Your task to perform on an android device: Open Google Chrome and click the shortcut for Amazon.com Image 0: 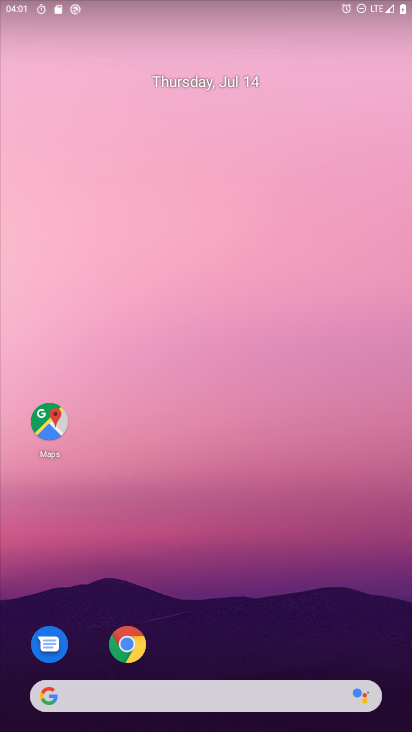
Step 0: drag from (270, 642) to (308, 56)
Your task to perform on an android device: Open Google Chrome and click the shortcut for Amazon.com Image 1: 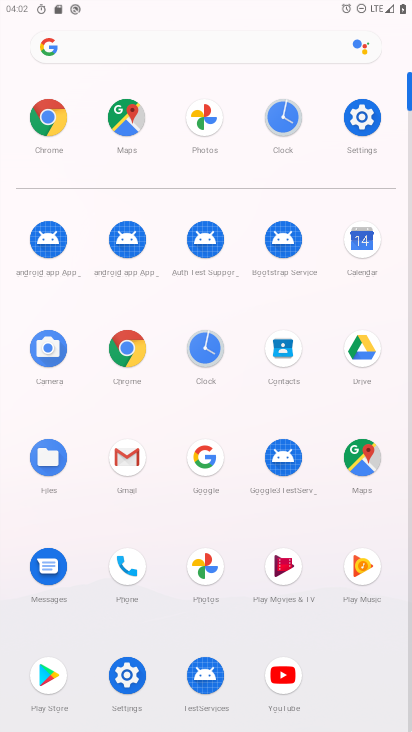
Step 1: click (127, 349)
Your task to perform on an android device: Open Google Chrome and click the shortcut for Amazon.com Image 2: 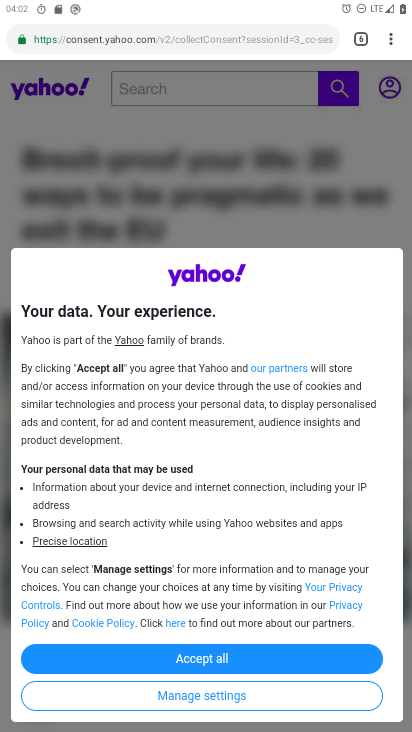
Step 2: click (156, 38)
Your task to perform on an android device: Open Google Chrome and click the shortcut for Amazon.com Image 3: 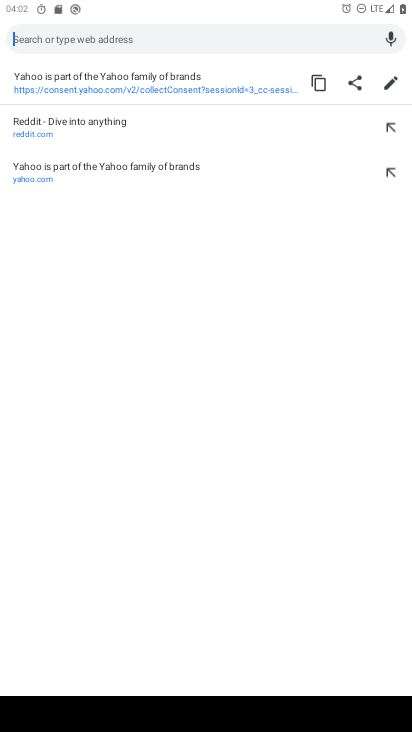
Step 3: type "amazon"
Your task to perform on an android device: Open Google Chrome and click the shortcut for Amazon.com Image 4: 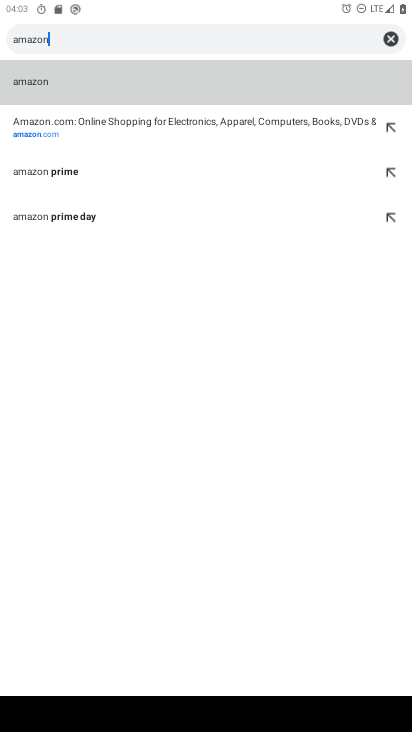
Step 4: click (47, 128)
Your task to perform on an android device: Open Google Chrome and click the shortcut for Amazon.com Image 5: 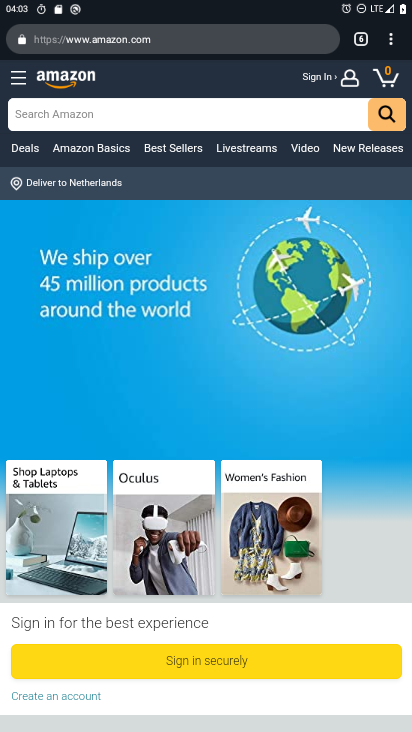
Step 5: task complete